Your task to perform on an android device: Open Amazon Image 0: 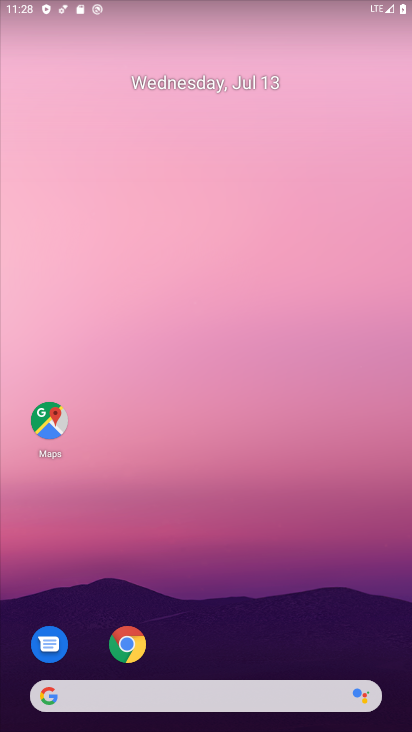
Step 0: drag from (234, 486) to (291, 215)
Your task to perform on an android device: Open Amazon Image 1: 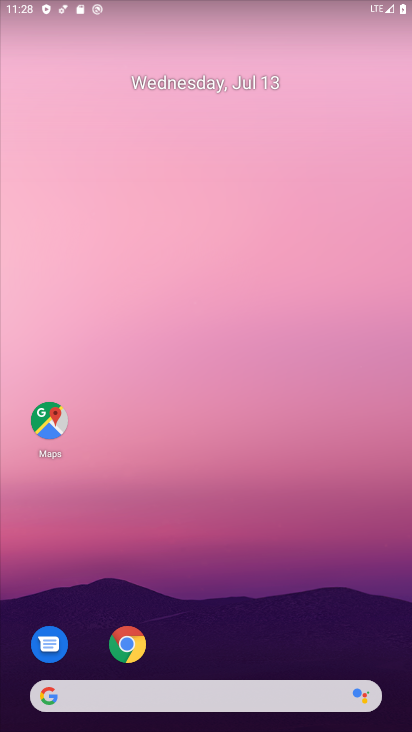
Step 1: drag from (208, 674) to (269, 163)
Your task to perform on an android device: Open Amazon Image 2: 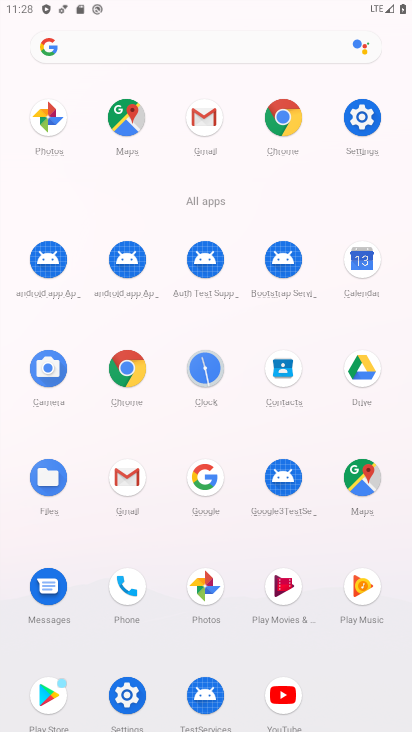
Step 2: click (136, 363)
Your task to perform on an android device: Open Amazon Image 3: 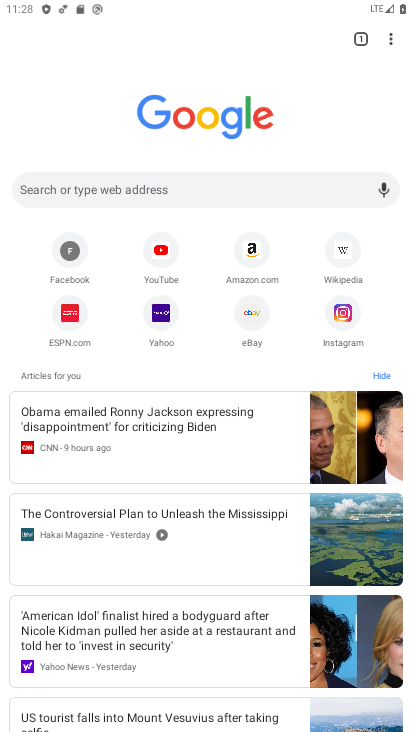
Step 3: click (256, 252)
Your task to perform on an android device: Open Amazon Image 4: 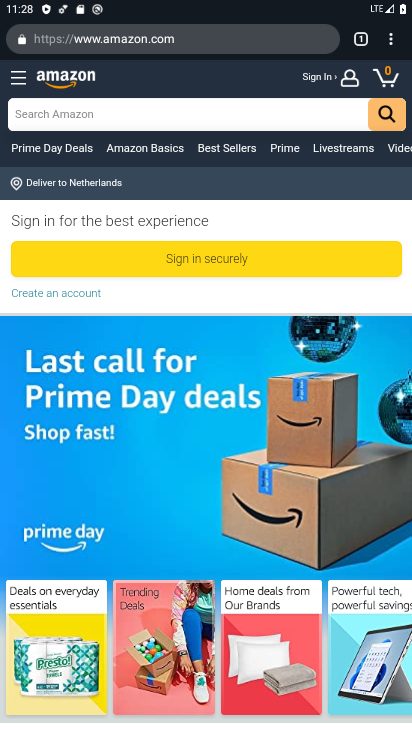
Step 4: task complete